Your task to perform on an android device: Go to accessibility settings Image 0: 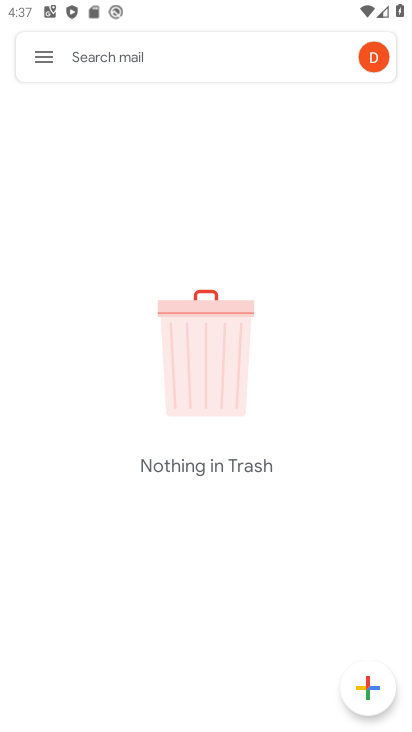
Step 0: press home button
Your task to perform on an android device: Go to accessibility settings Image 1: 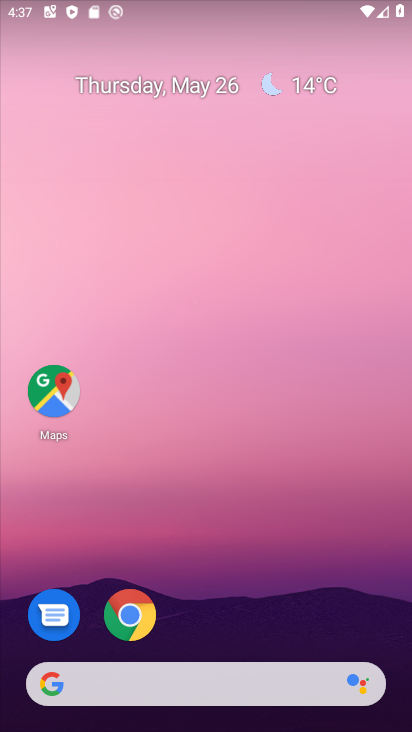
Step 1: drag from (254, 546) to (262, 162)
Your task to perform on an android device: Go to accessibility settings Image 2: 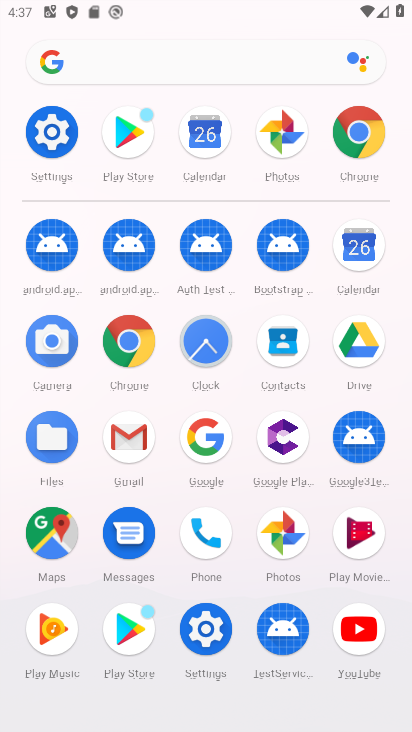
Step 2: click (70, 121)
Your task to perform on an android device: Go to accessibility settings Image 3: 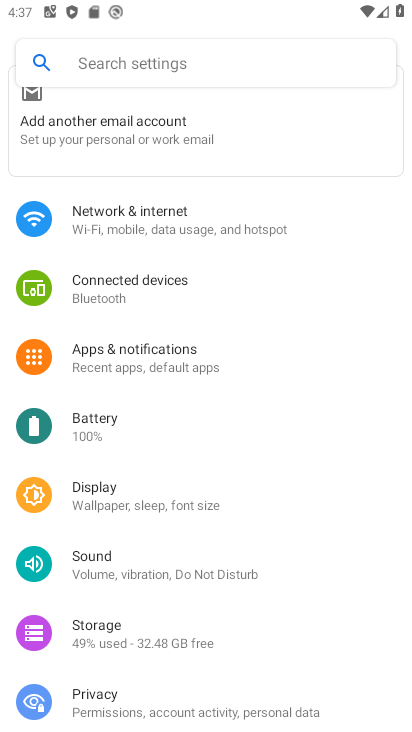
Step 3: drag from (220, 479) to (410, 49)
Your task to perform on an android device: Go to accessibility settings Image 4: 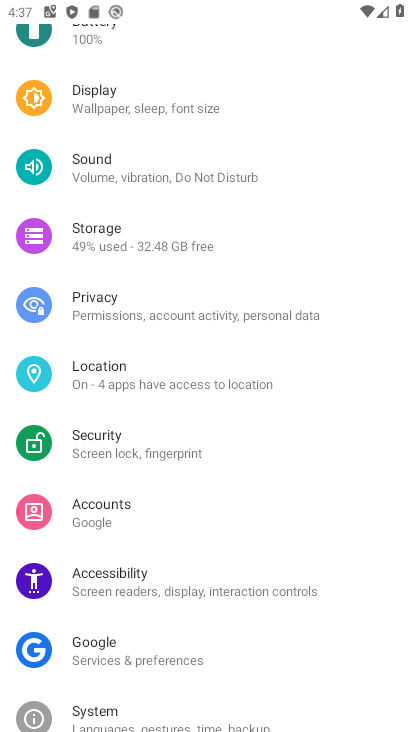
Step 4: drag from (150, 635) to (231, 267)
Your task to perform on an android device: Go to accessibility settings Image 5: 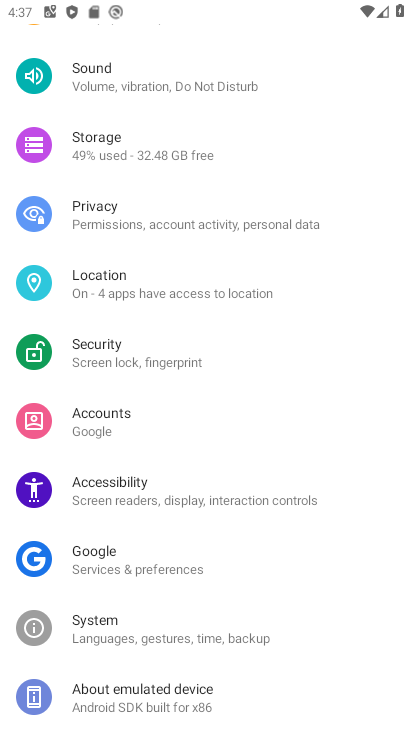
Step 5: click (100, 487)
Your task to perform on an android device: Go to accessibility settings Image 6: 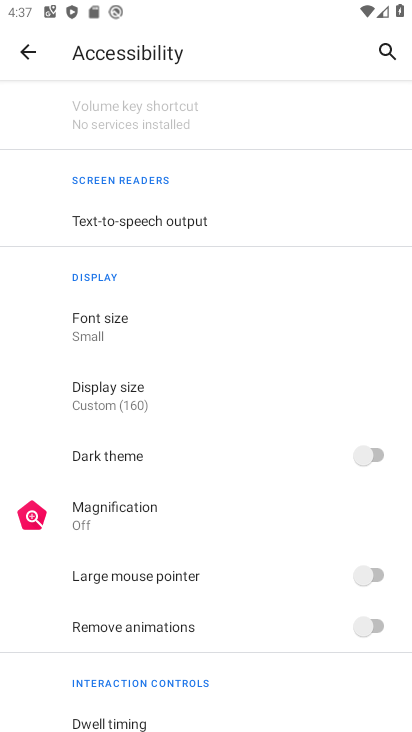
Step 6: task complete